Your task to perform on an android device: open app "Expedia: Hotels, Flights & Car" Image 0: 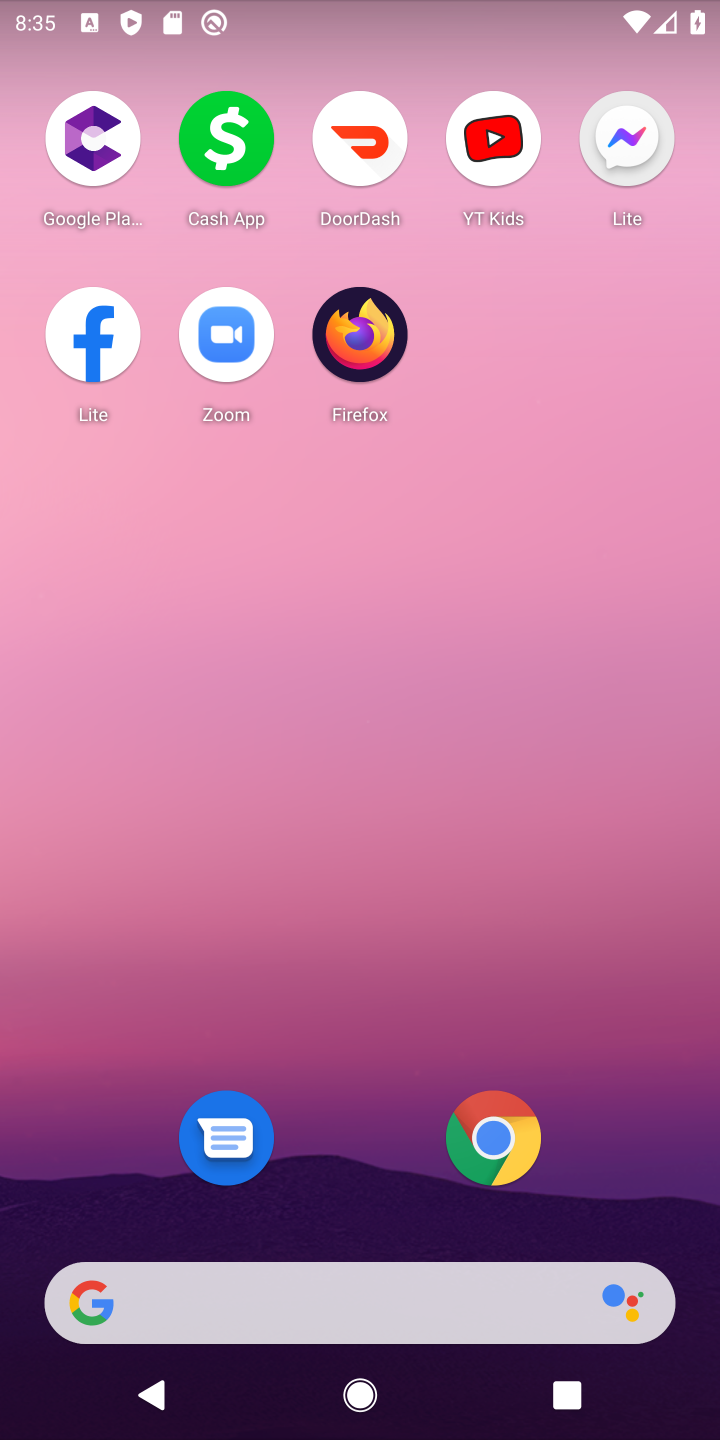
Step 0: drag from (401, 941) to (401, 230)
Your task to perform on an android device: open app "Expedia: Hotels, Flights & Car" Image 1: 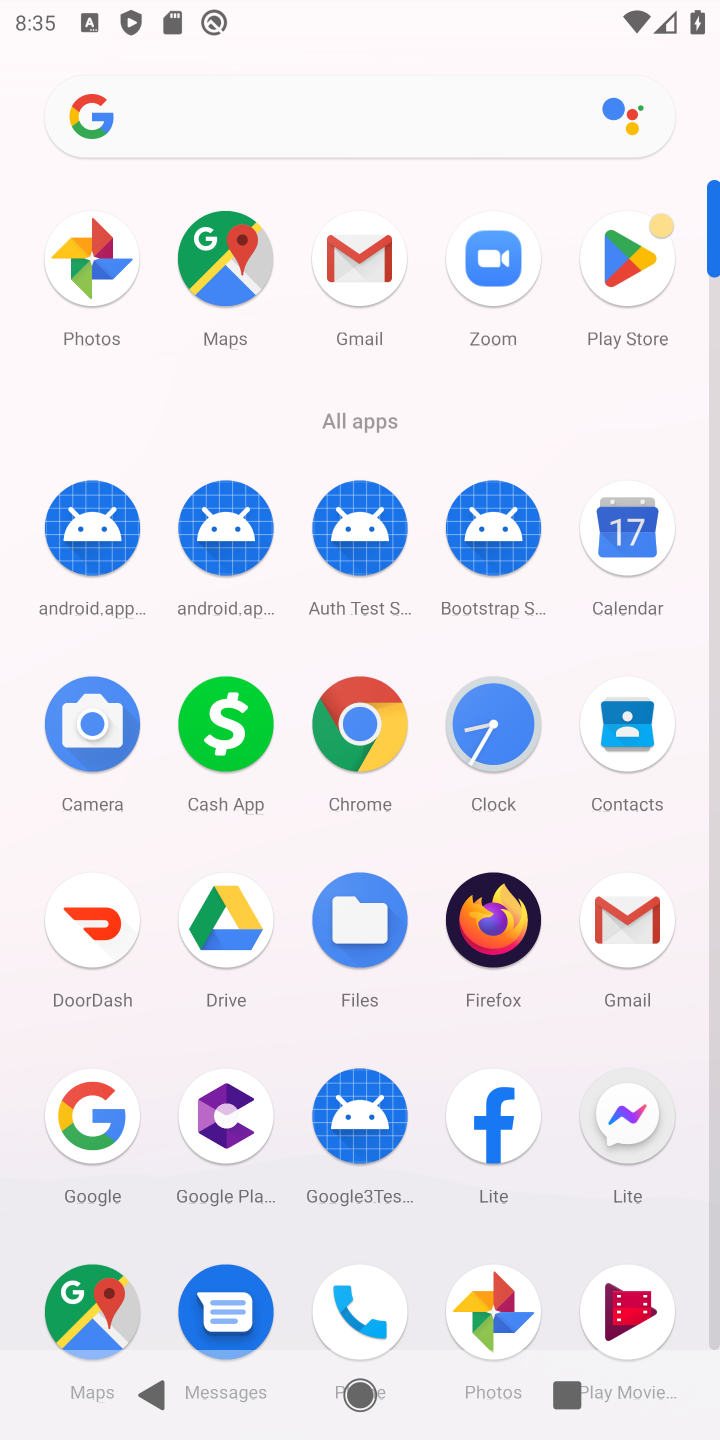
Step 1: click (615, 261)
Your task to perform on an android device: open app "Expedia: Hotels, Flights & Car" Image 2: 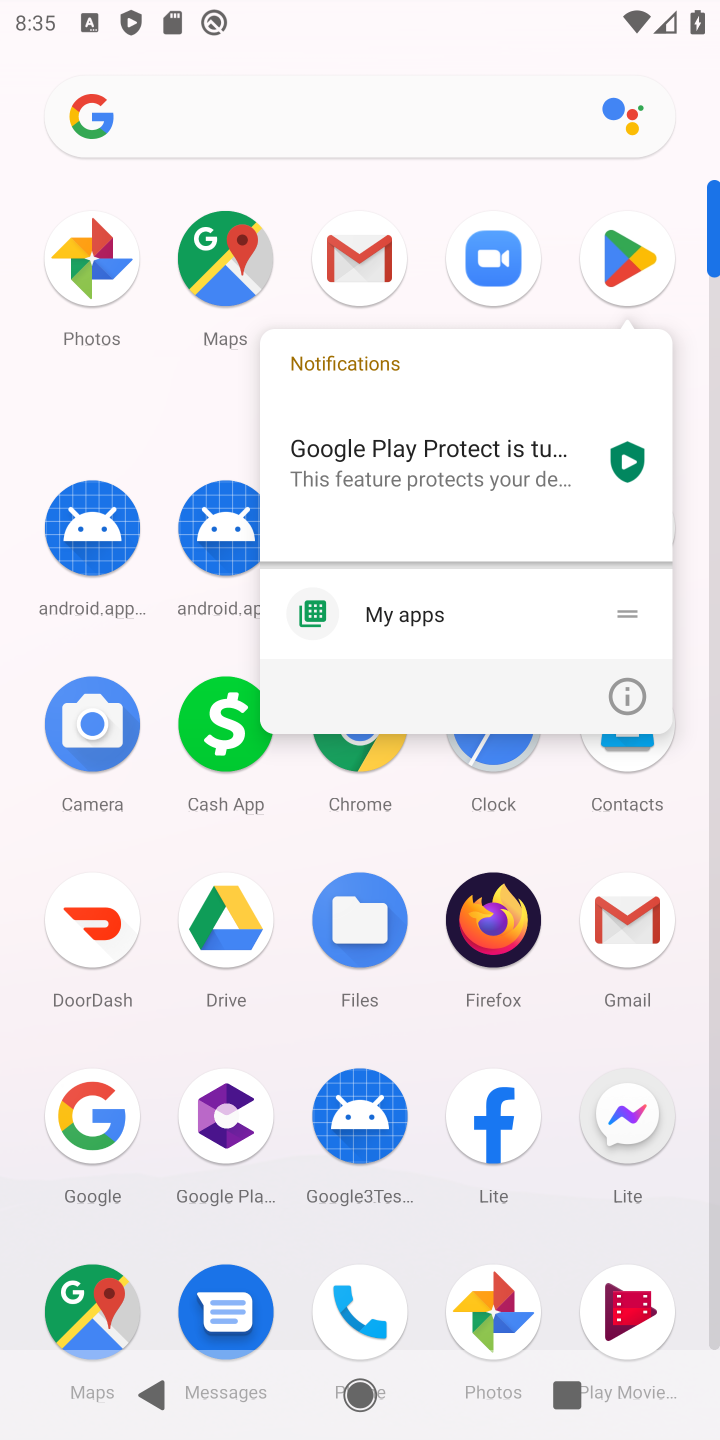
Step 2: click (620, 294)
Your task to perform on an android device: open app "Expedia: Hotels, Flights & Car" Image 3: 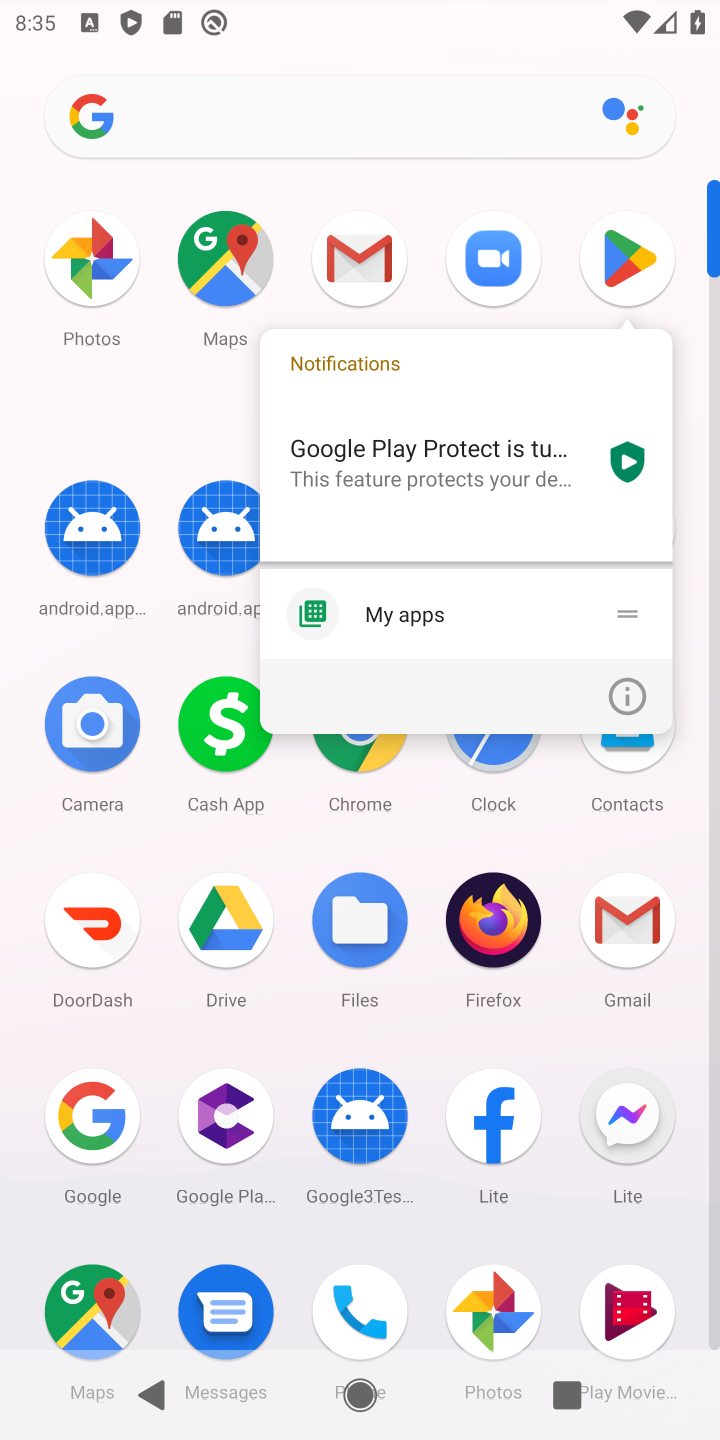
Step 3: click (620, 294)
Your task to perform on an android device: open app "Expedia: Hotels, Flights & Car" Image 4: 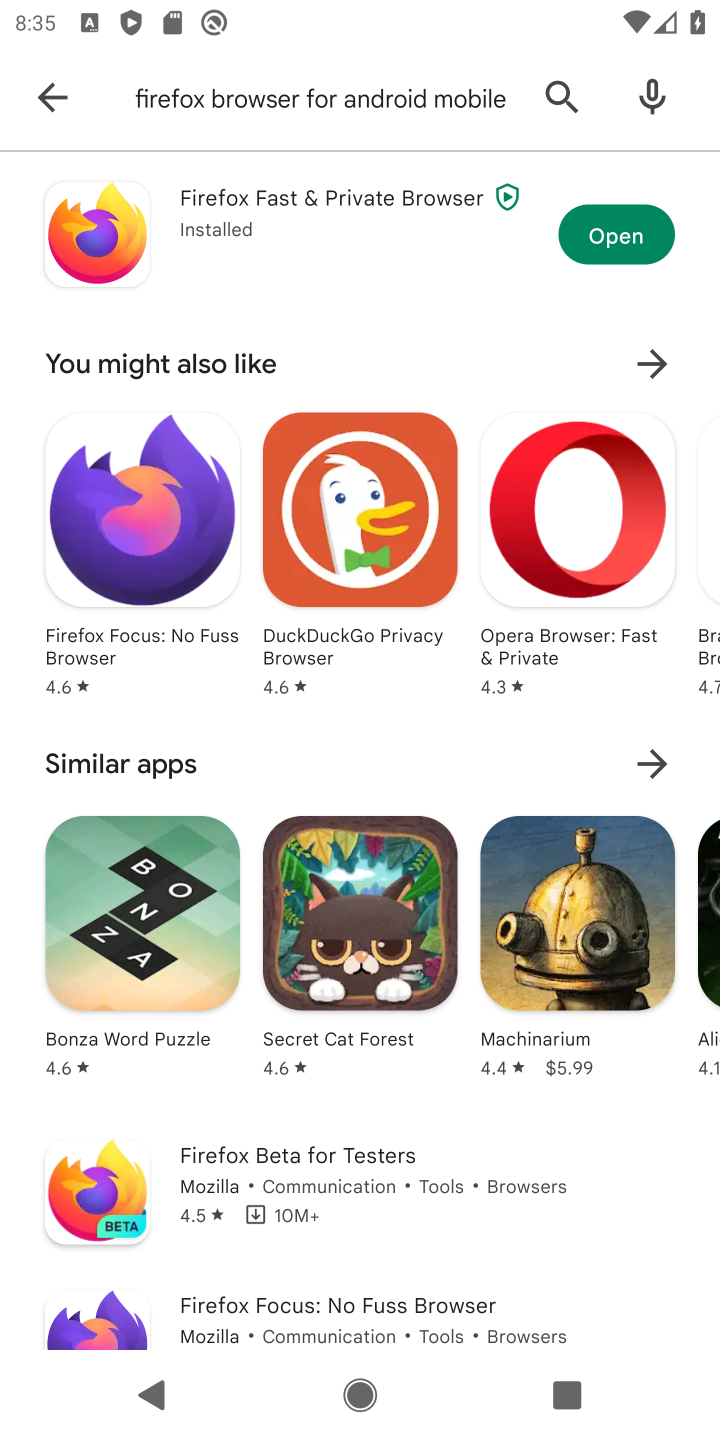
Step 4: click (70, 86)
Your task to perform on an android device: open app "Expedia: Hotels, Flights & Car" Image 5: 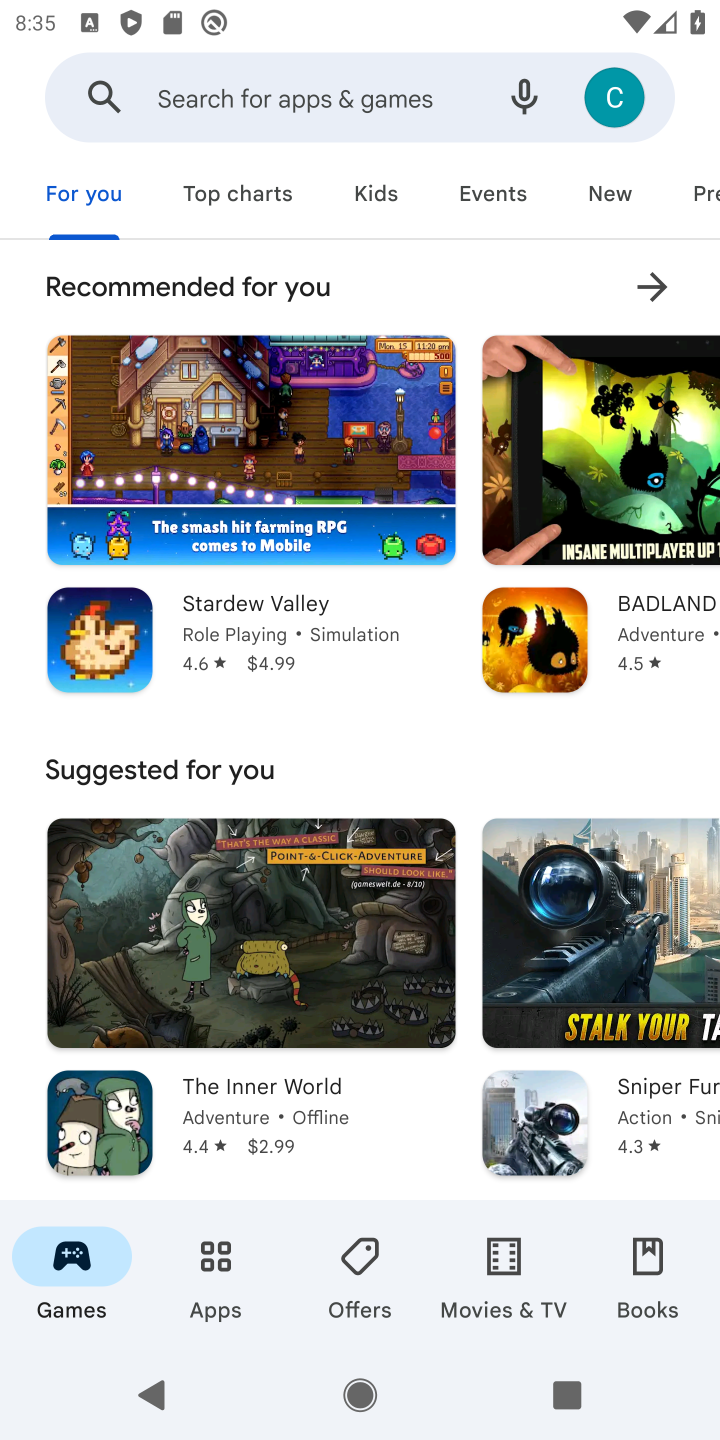
Step 5: click (395, 68)
Your task to perform on an android device: open app "Expedia: Hotels, Flights & Car" Image 6: 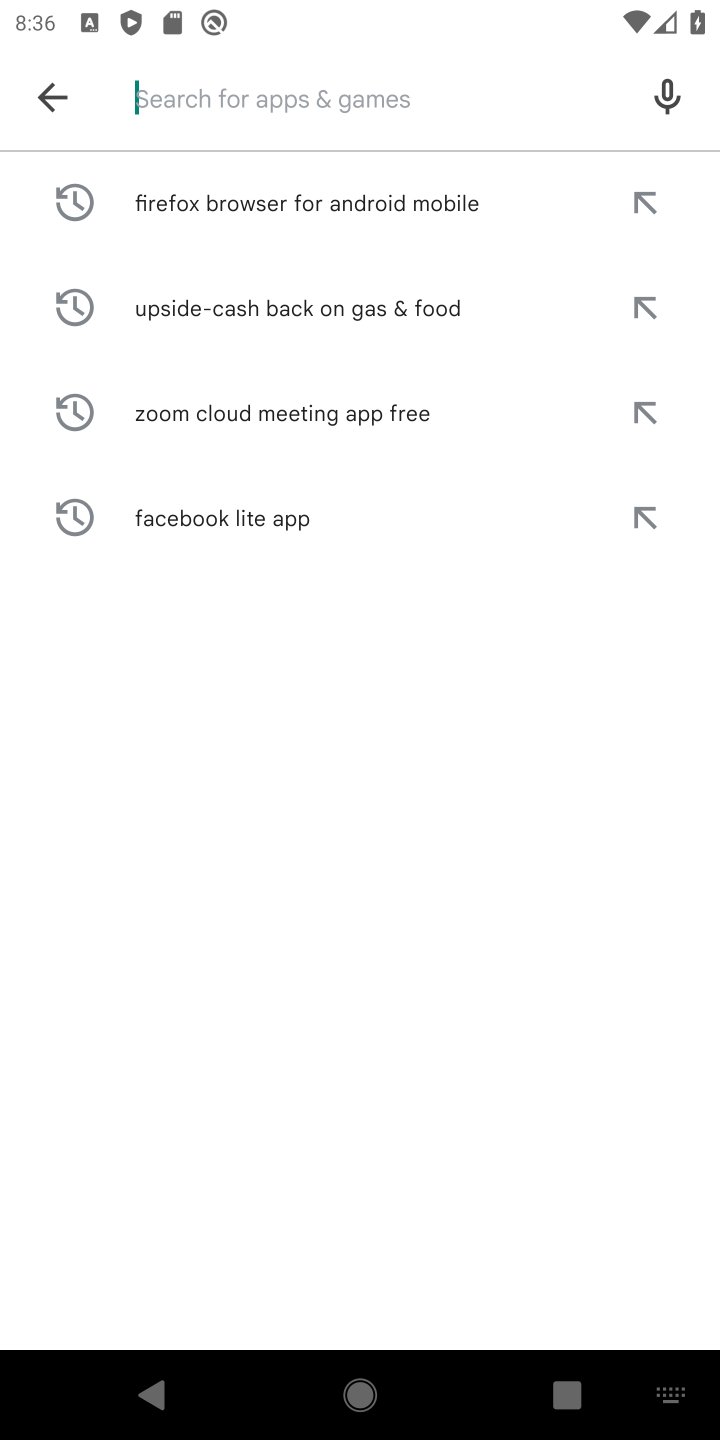
Step 6: type "Expedia: Hotels, Flights & Car "
Your task to perform on an android device: open app "Expedia: Hotels, Flights & Car" Image 7: 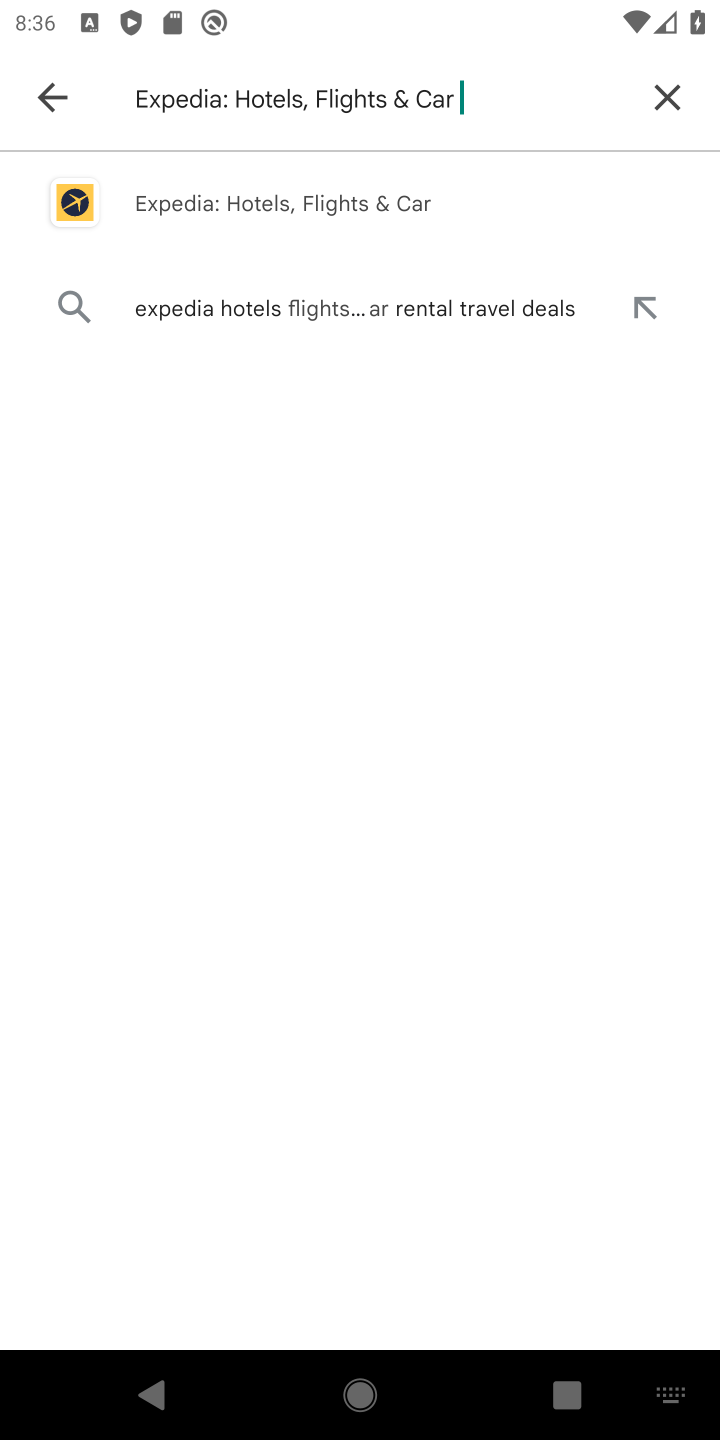
Step 7: click (335, 205)
Your task to perform on an android device: open app "Expedia: Hotels, Flights & Car" Image 8: 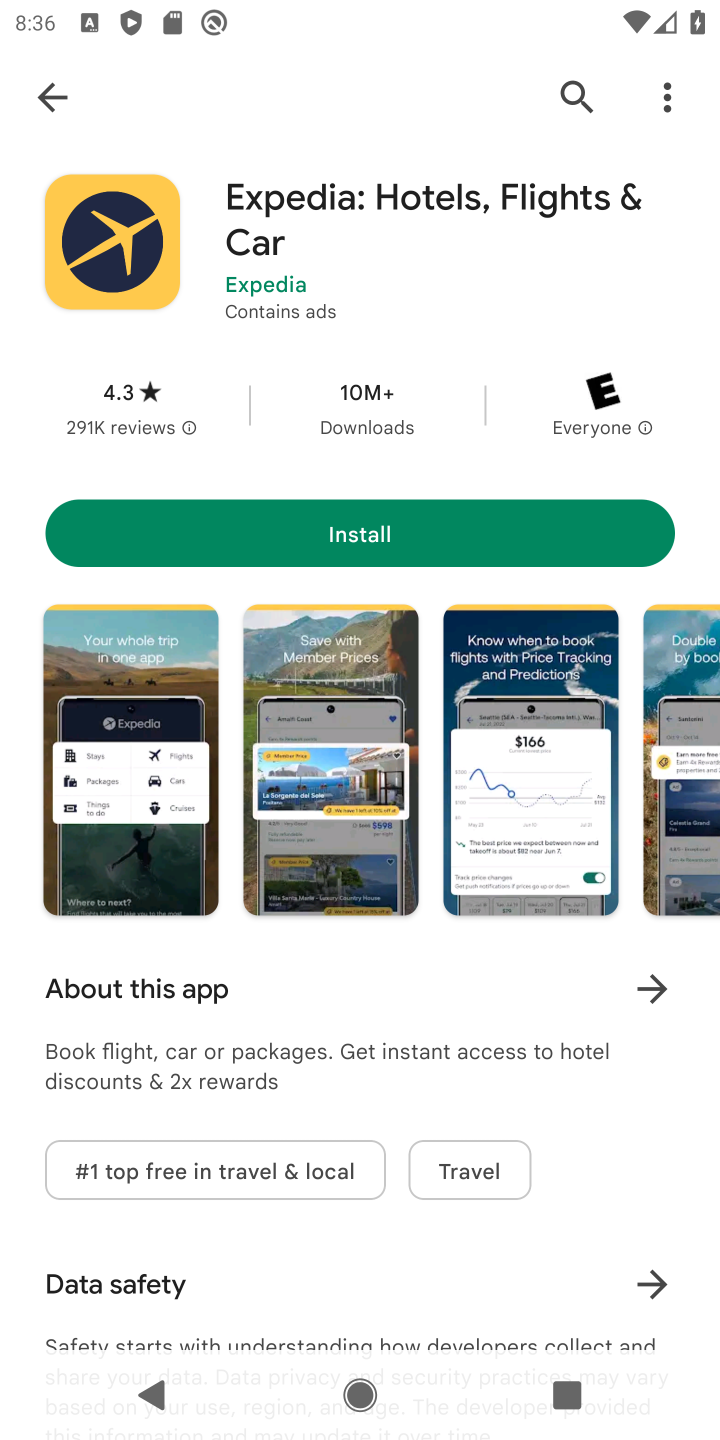
Step 8: click (352, 538)
Your task to perform on an android device: open app "Expedia: Hotels, Flights & Car" Image 9: 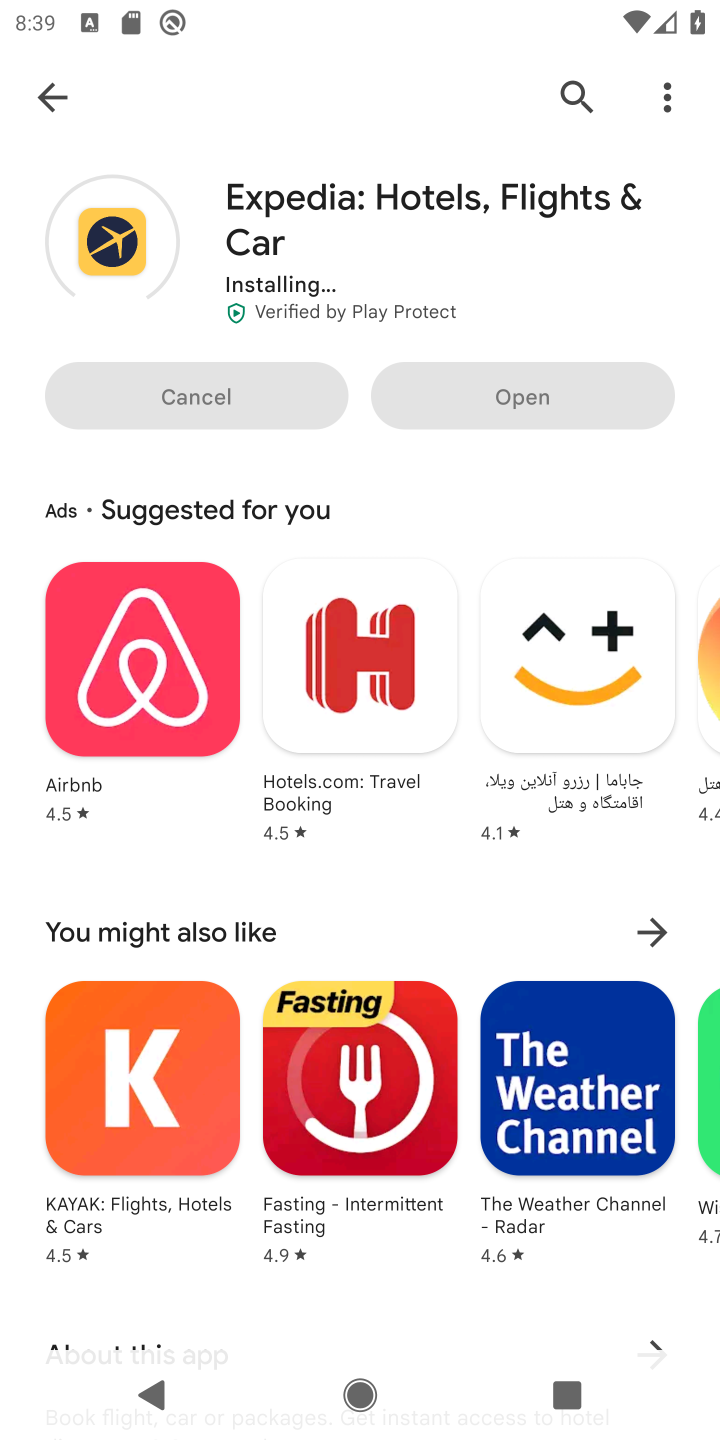
Step 9: task complete